Your task to perform on an android device: turn off priority inbox in the gmail app Image 0: 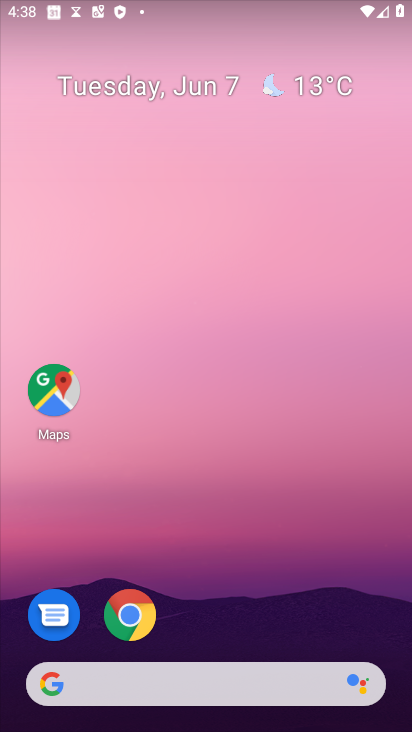
Step 0: drag from (262, 638) to (160, 131)
Your task to perform on an android device: turn off priority inbox in the gmail app Image 1: 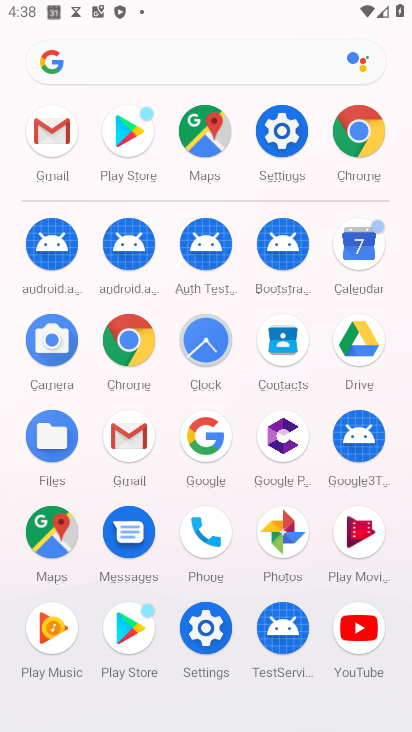
Step 1: click (121, 427)
Your task to perform on an android device: turn off priority inbox in the gmail app Image 2: 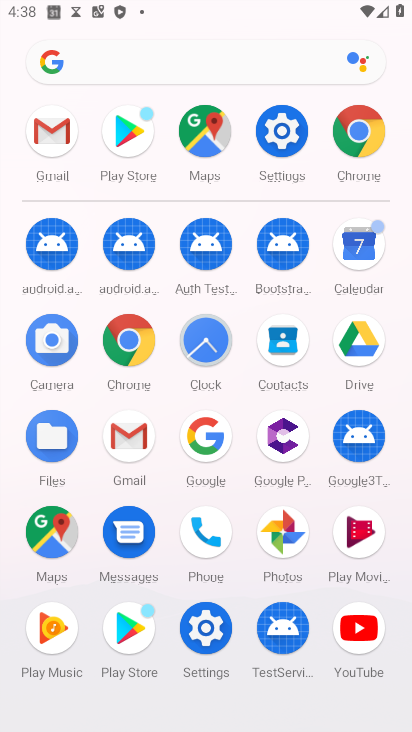
Step 2: click (123, 428)
Your task to perform on an android device: turn off priority inbox in the gmail app Image 3: 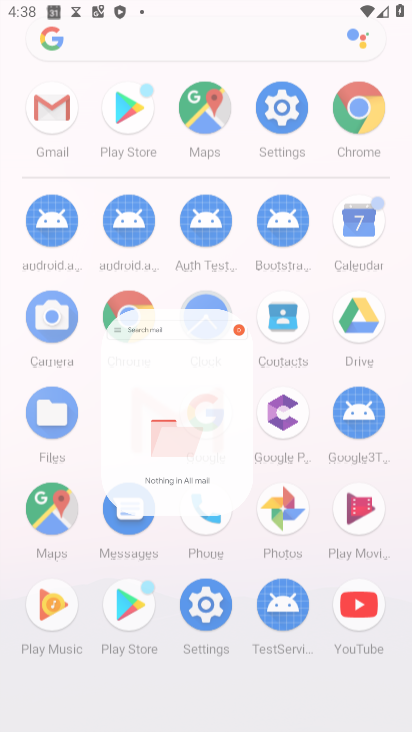
Step 3: click (124, 428)
Your task to perform on an android device: turn off priority inbox in the gmail app Image 4: 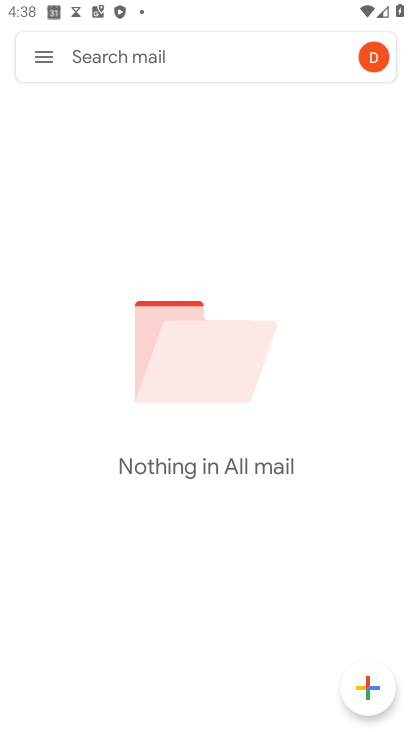
Step 4: click (128, 443)
Your task to perform on an android device: turn off priority inbox in the gmail app Image 5: 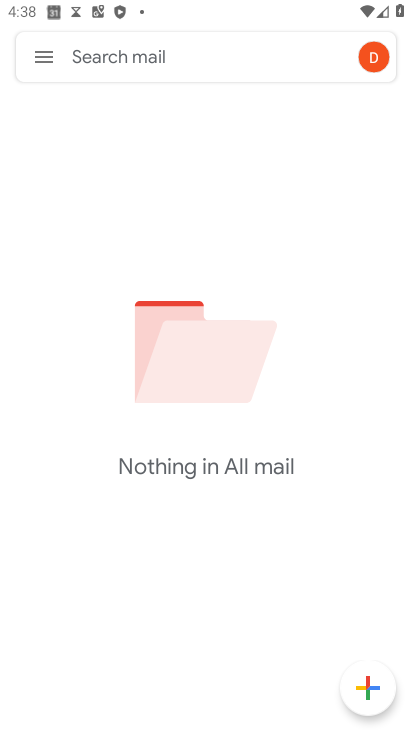
Step 5: click (42, 66)
Your task to perform on an android device: turn off priority inbox in the gmail app Image 6: 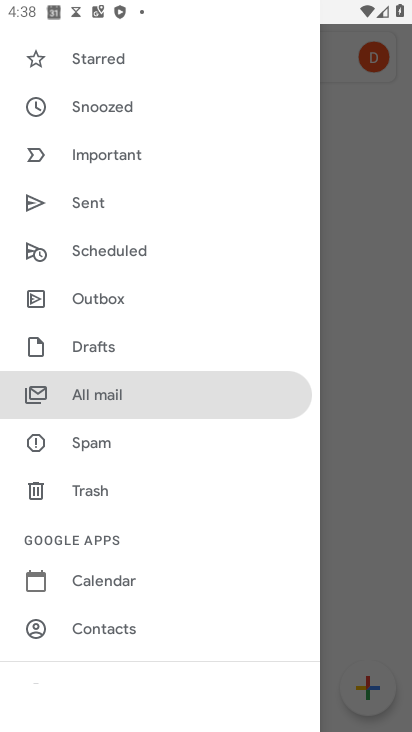
Step 6: drag from (97, 495) to (56, 75)
Your task to perform on an android device: turn off priority inbox in the gmail app Image 7: 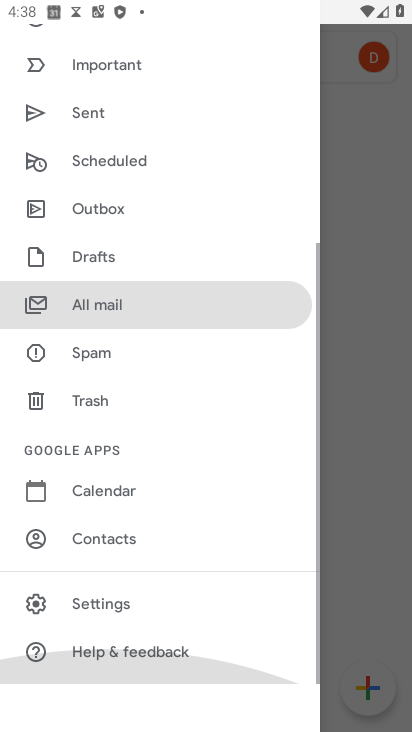
Step 7: drag from (144, 416) to (128, 126)
Your task to perform on an android device: turn off priority inbox in the gmail app Image 8: 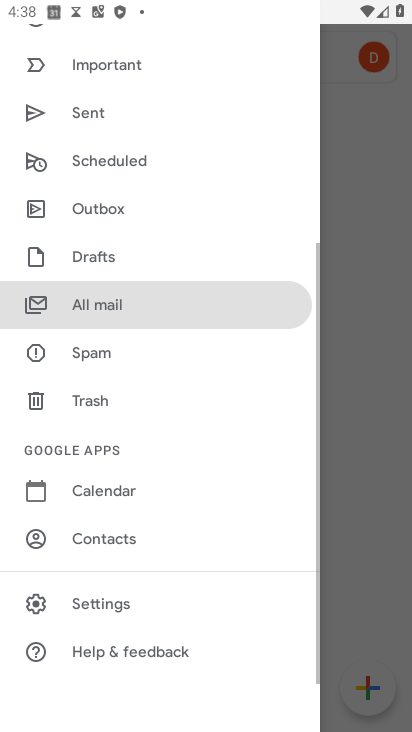
Step 8: click (97, 602)
Your task to perform on an android device: turn off priority inbox in the gmail app Image 9: 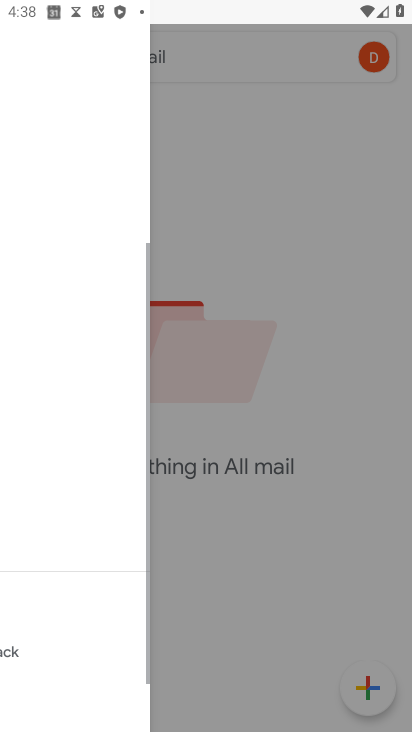
Step 9: click (97, 602)
Your task to perform on an android device: turn off priority inbox in the gmail app Image 10: 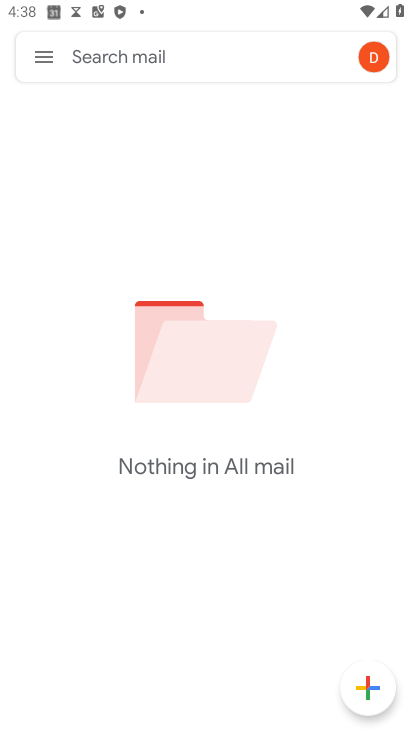
Step 10: click (97, 602)
Your task to perform on an android device: turn off priority inbox in the gmail app Image 11: 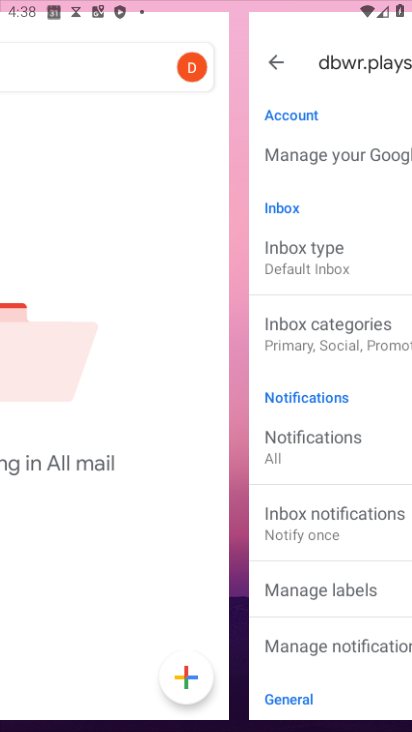
Step 11: click (92, 601)
Your task to perform on an android device: turn off priority inbox in the gmail app Image 12: 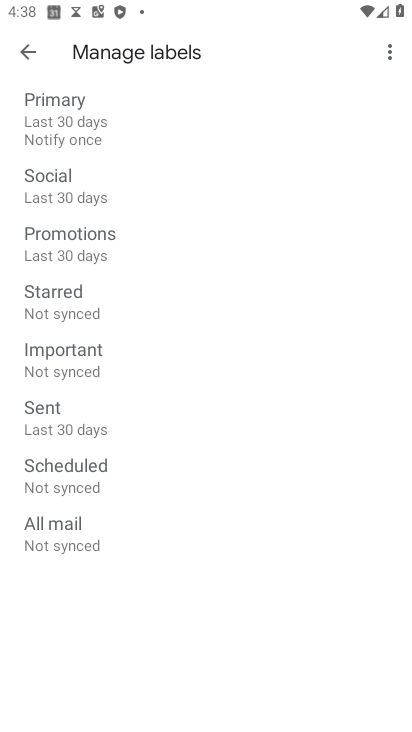
Step 12: click (28, 56)
Your task to perform on an android device: turn off priority inbox in the gmail app Image 13: 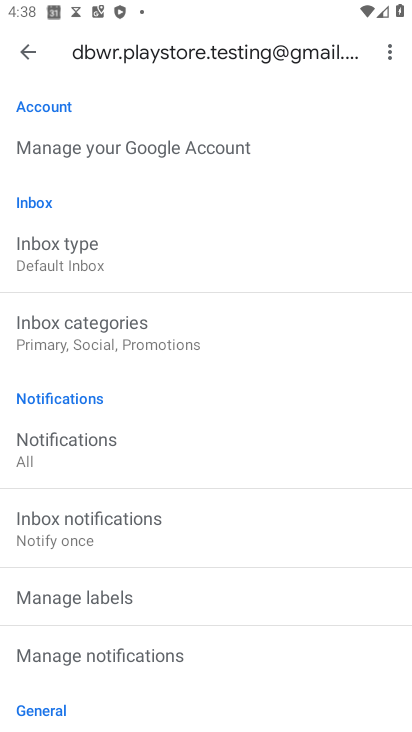
Step 13: click (41, 249)
Your task to perform on an android device: turn off priority inbox in the gmail app Image 14: 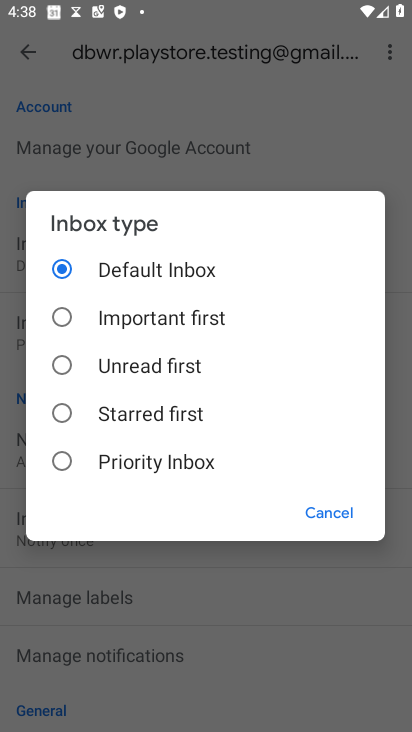
Step 14: click (62, 460)
Your task to perform on an android device: turn off priority inbox in the gmail app Image 15: 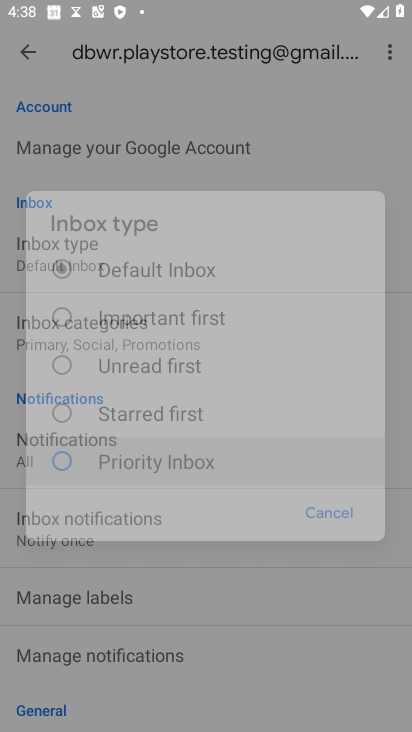
Step 15: click (62, 460)
Your task to perform on an android device: turn off priority inbox in the gmail app Image 16: 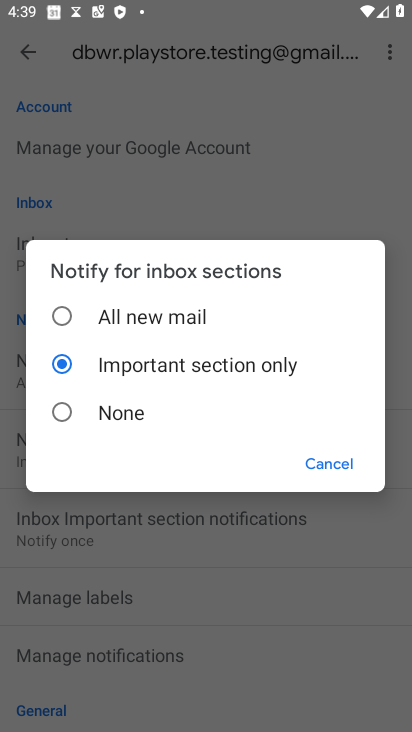
Step 16: click (324, 464)
Your task to perform on an android device: turn off priority inbox in the gmail app Image 17: 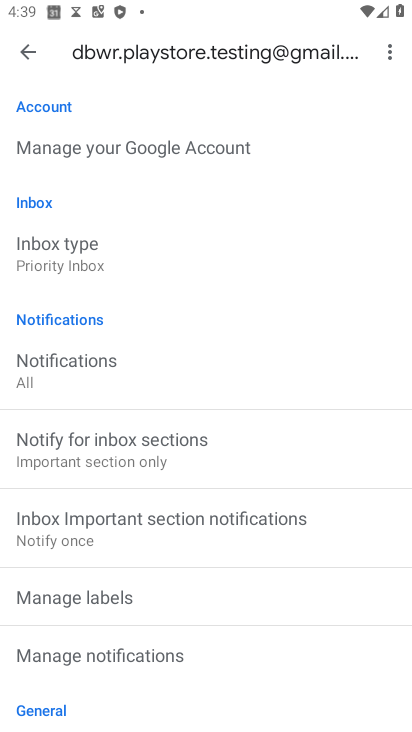
Step 17: task complete